Your task to perform on an android device: Show me popular videos on Youtube Image 0: 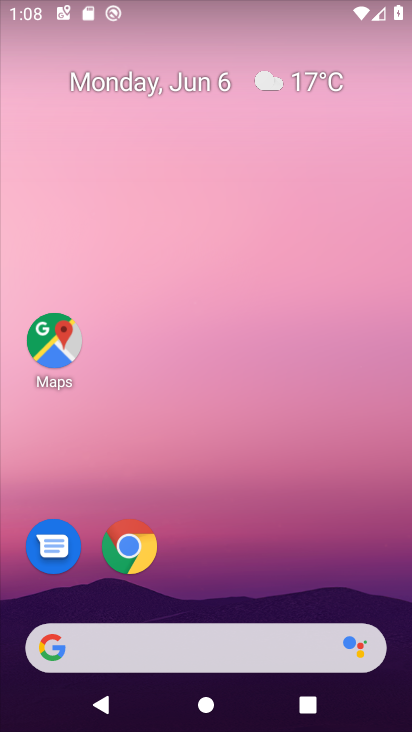
Step 0: drag from (205, 631) to (160, 83)
Your task to perform on an android device: Show me popular videos on Youtube Image 1: 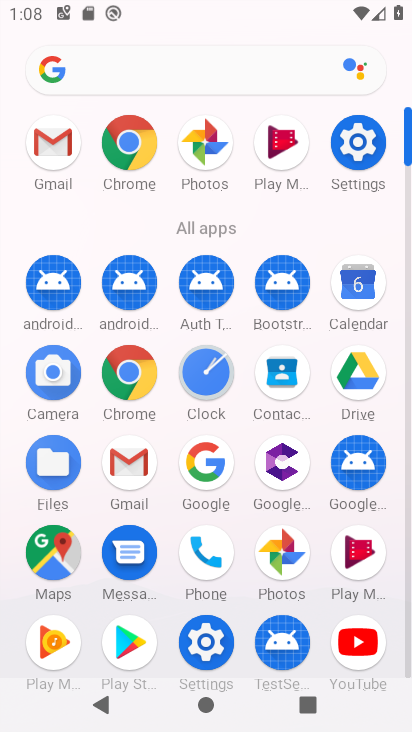
Step 1: click (368, 650)
Your task to perform on an android device: Show me popular videos on Youtube Image 2: 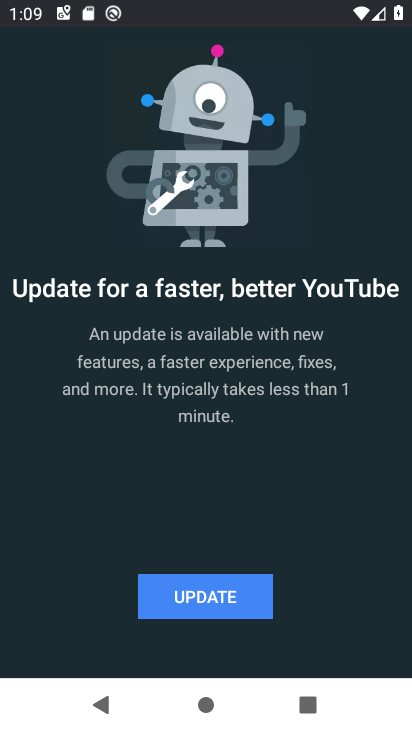
Step 2: click (207, 603)
Your task to perform on an android device: Show me popular videos on Youtube Image 3: 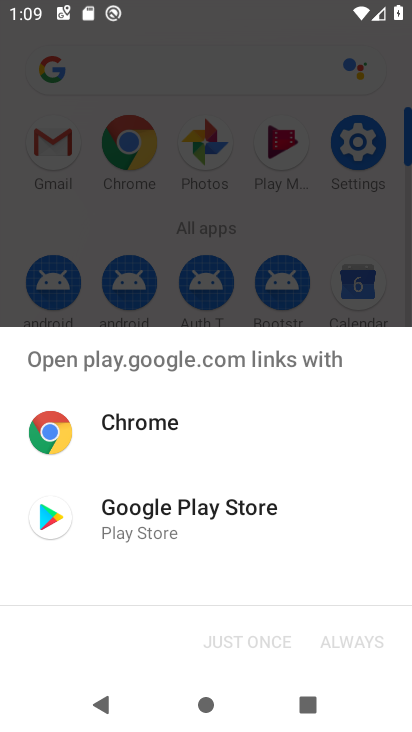
Step 3: click (157, 533)
Your task to perform on an android device: Show me popular videos on Youtube Image 4: 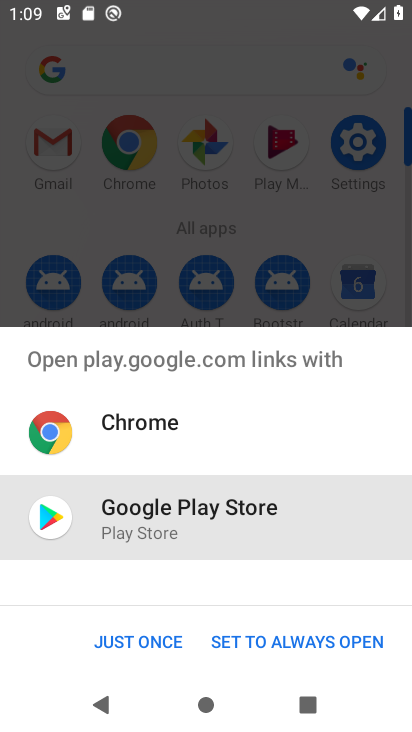
Step 4: click (132, 651)
Your task to perform on an android device: Show me popular videos on Youtube Image 5: 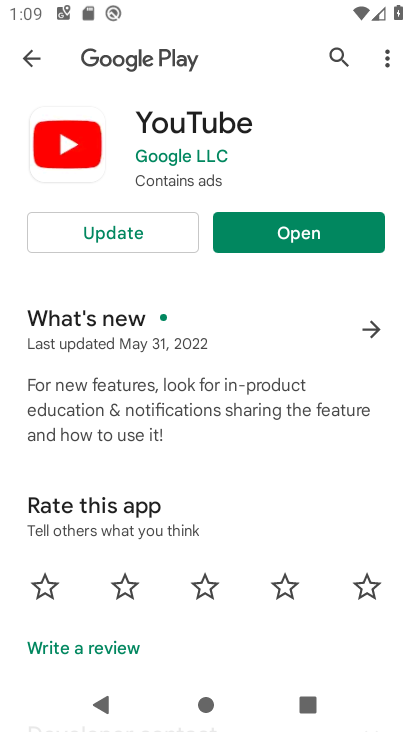
Step 5: click (169, 241)
Your task to perform on an android device: Show me popular videos on Youtube Image 6: 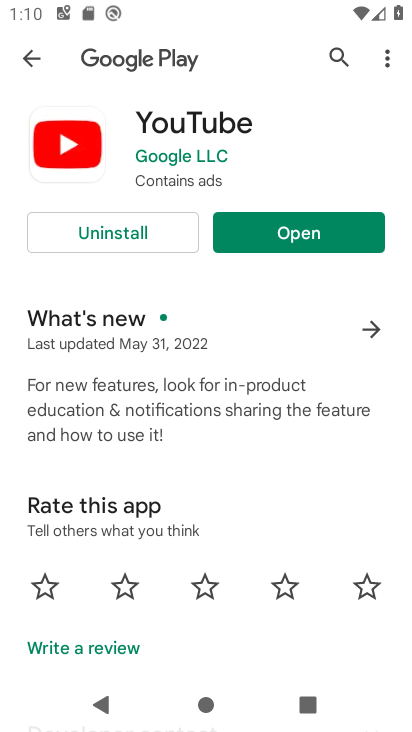
Step 6: click (277, 234)
Your task to perform on an android device: Show me popular videos on Youtube Image 7: 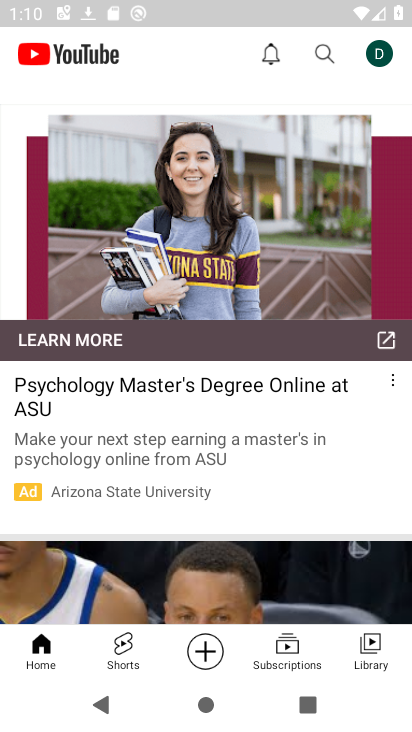
Step 7: drag from (194, 274) to (229, 525)
Your task to perform on an android device: Show me popular videos on Youtube Image 8: 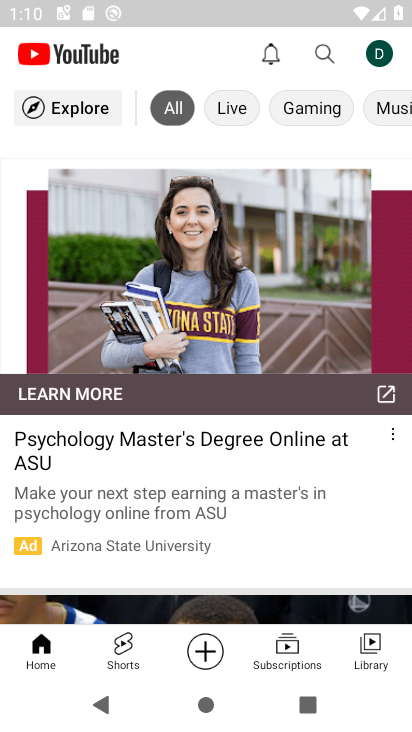
Step 8: click (64, 109)
Your task to perform on an android device: Show me popular videos on Youtube Image 9: 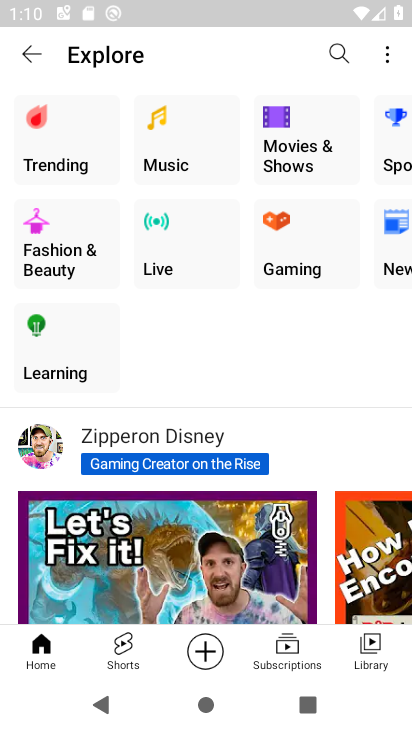
Step 9: click (63, 149)
Your task to perform on an android device: Show me popular videos on Youtube Image 10: 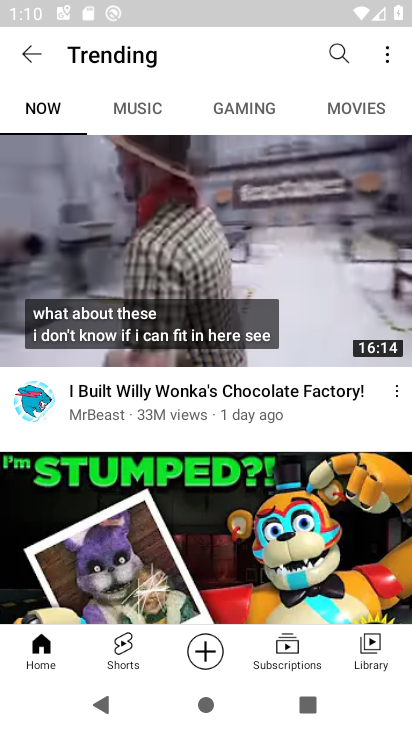
Step 10: task complete